Your task to perform on an android device: Go to Yahoo.com Image 0: 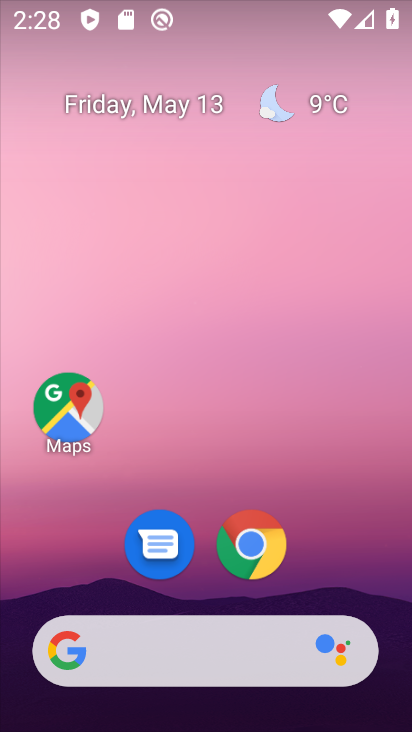
Step 0: click (273, 539)
Your task to perform on an android device: Go to Yahoo.com Image 1: 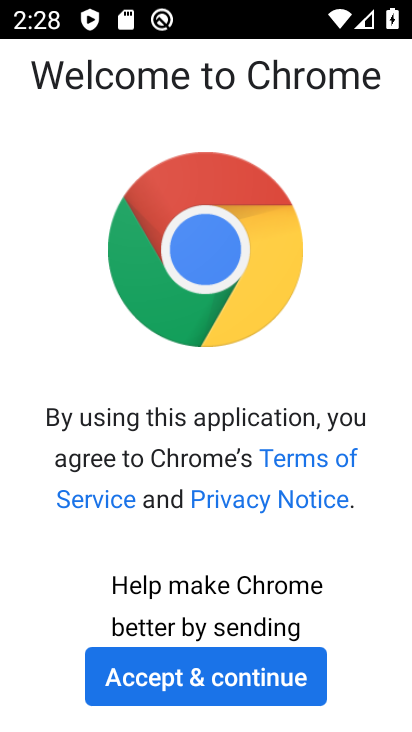
Step 1: click (243, 682)
Your task to perform on an android device: Go to Yahoo.com Image 2: 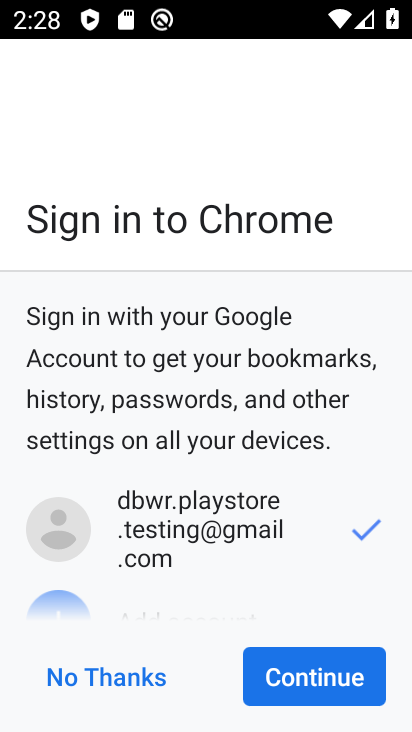
Step 2: click (318, 671)
Your task to perform on an android device: Go to Yahoo.com Image 3: 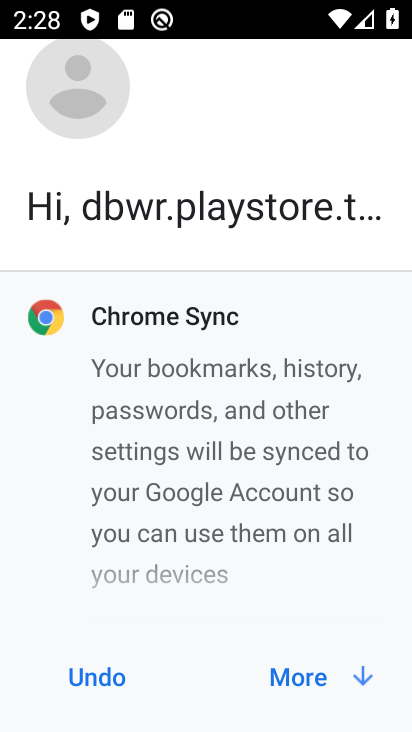
Step 3: click (318, 671)
Your task to perform on an android device: Go to Yahoo.com Image 4: 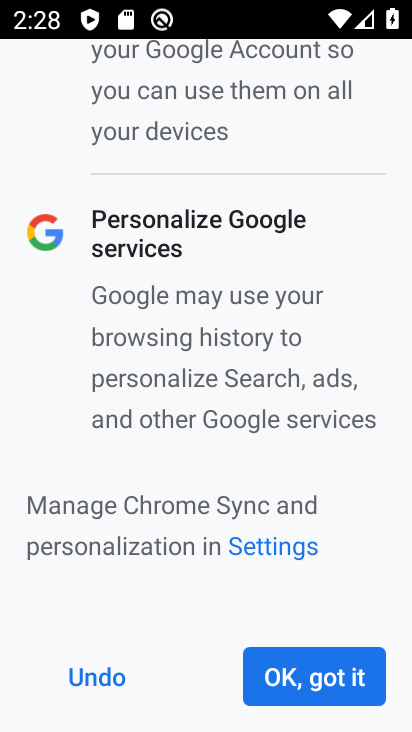
Step 4: click (318, 671)
Your task to perform on an android device: Go to Yahoo.com Image 5: 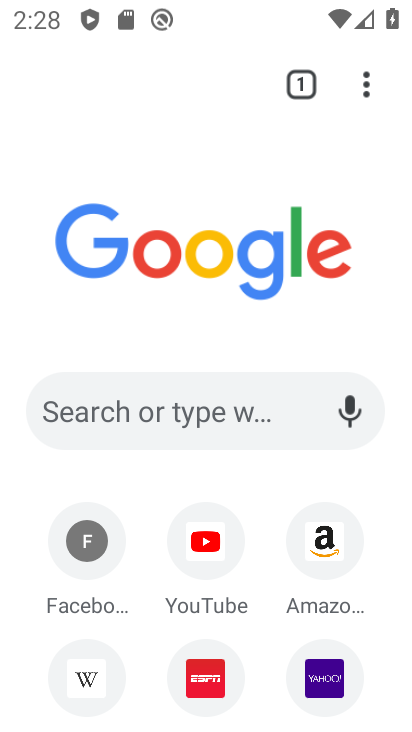
Step 5: click (327, 680)
Your task to perform on an android device: Go to Yahoo.com Image 6: 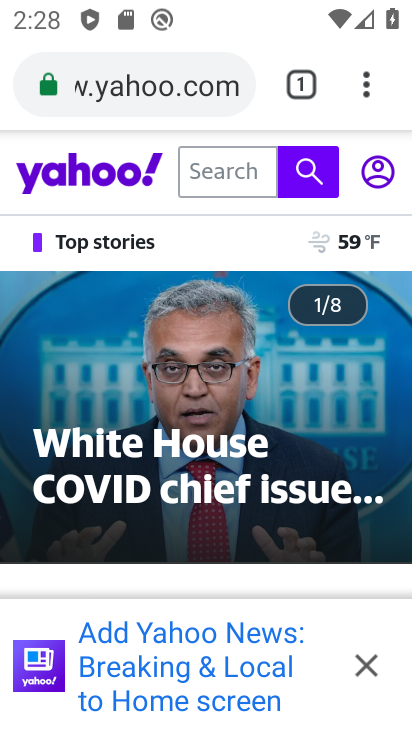
Step 6: click (369, 677)
Your task to perform on an android device: Go to Yahoo.com Image 7: 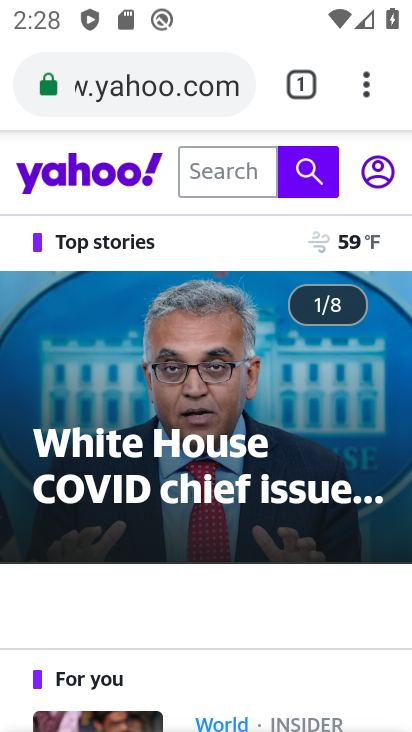
Step 7: task complete